Your task to perform on an android device: add a contact in the contacts app Image 0: 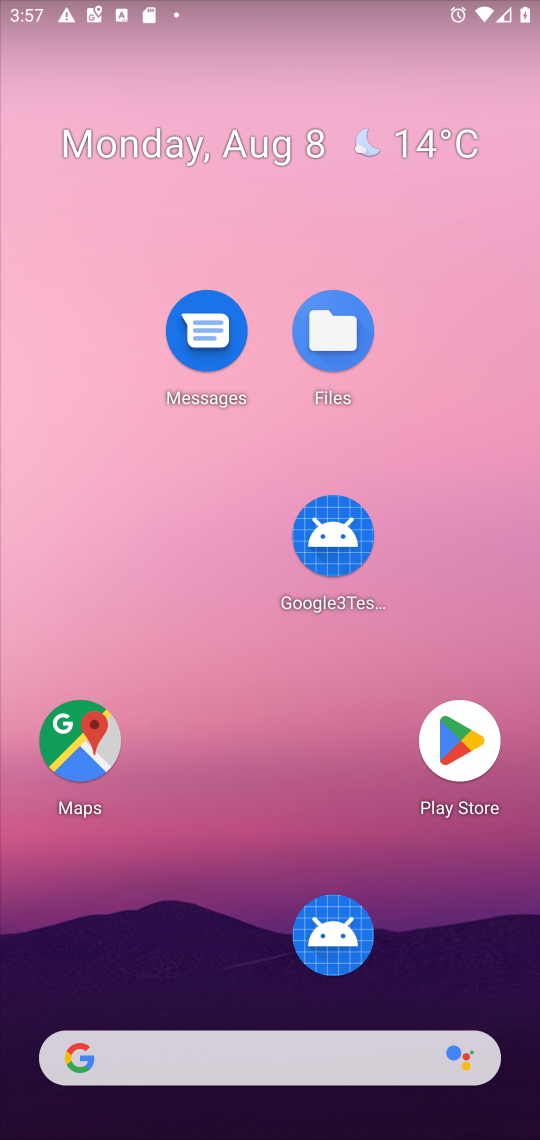
Step 0: drag from (273, 1047) to (177, 56)
Your task to perform on an android device: add a contact in the contacts app Image 1: 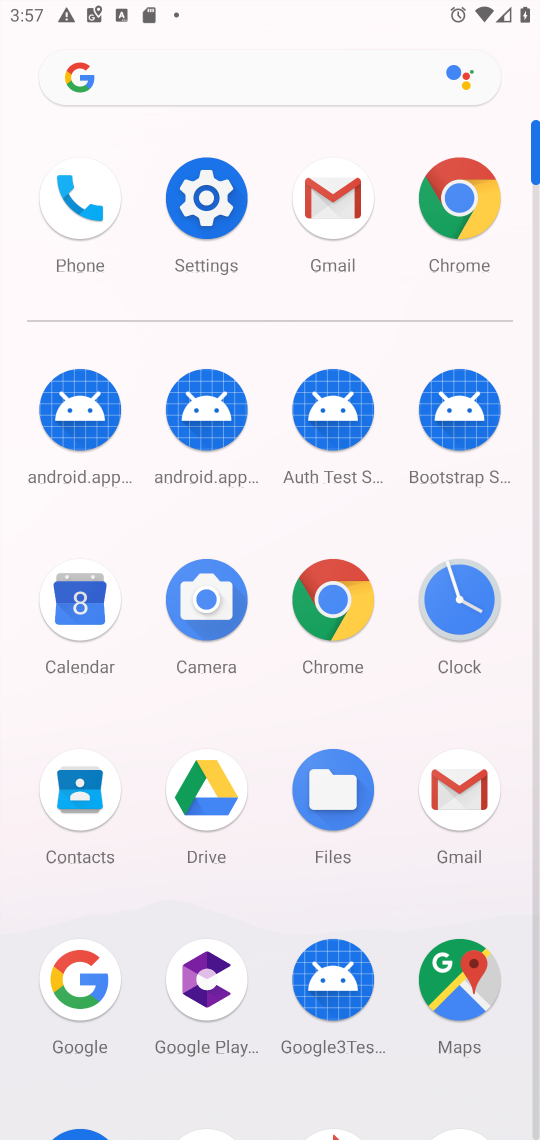
Step 1: click (85, 797)
Your task to perform on an android device: add a contact in the contacts app Image 2: 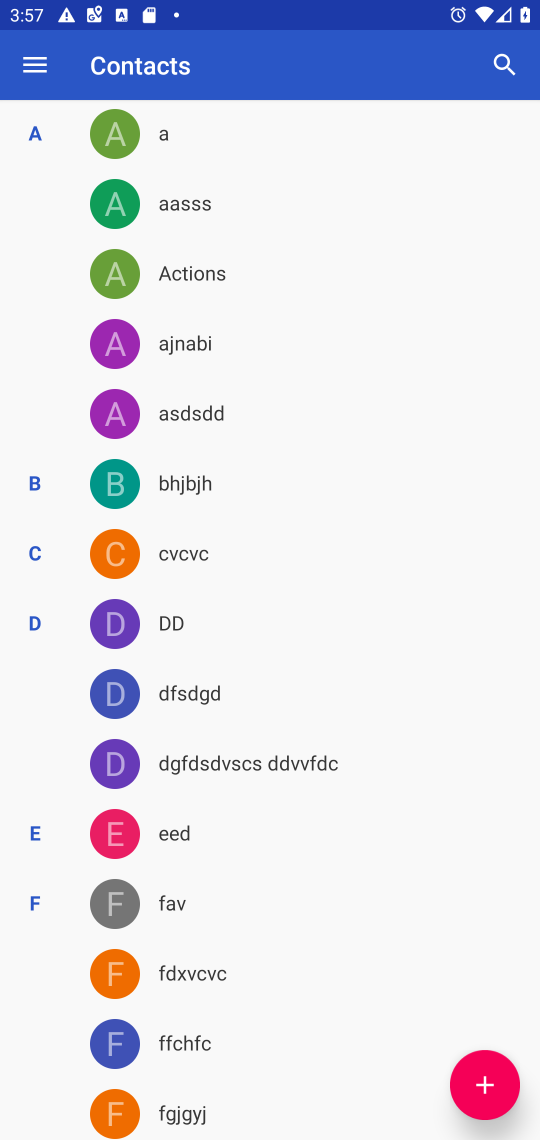
Step 2: click (497, 1082)
Your task to perform on an android device: add a contact in the contacts app Image 3: 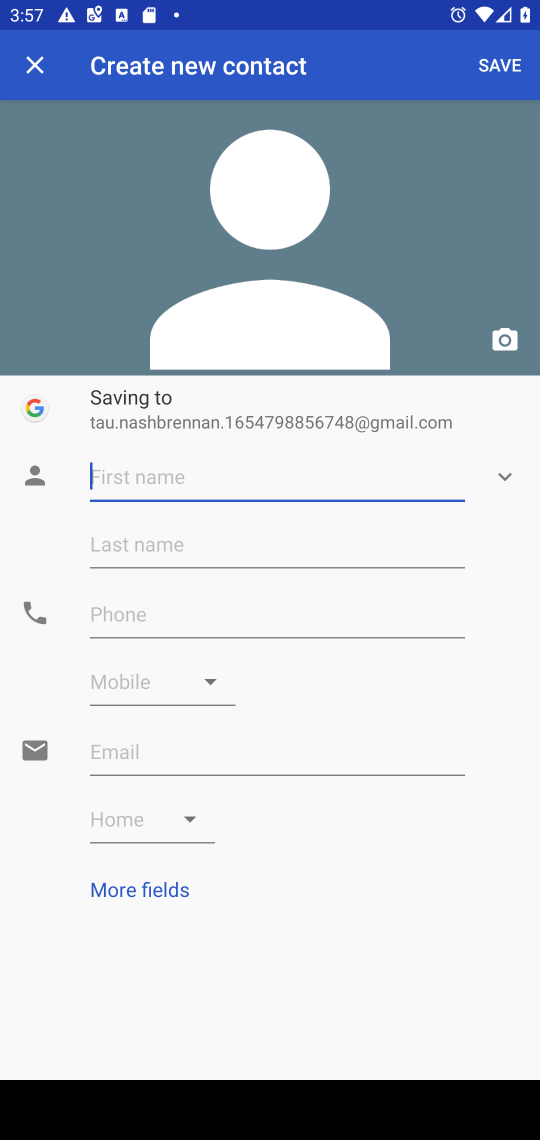
Step 3: type "jfhdf"
Your task to perform on an android device: add a contact in the contacts app Image 4: 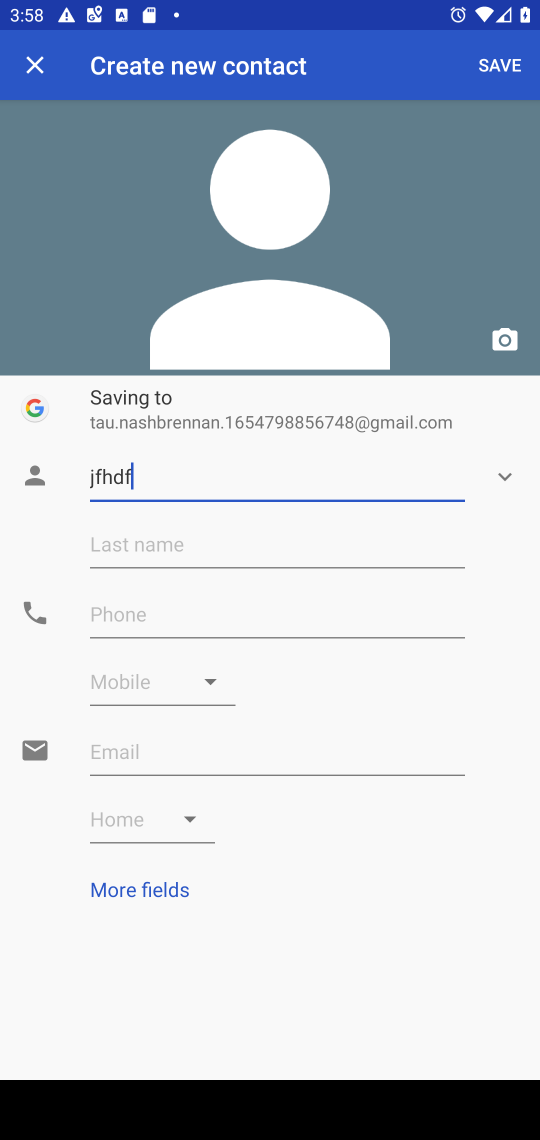
Step 4: click (145, 620)
Your task to perform on an android device: add a contact in the contacts app Image 5: 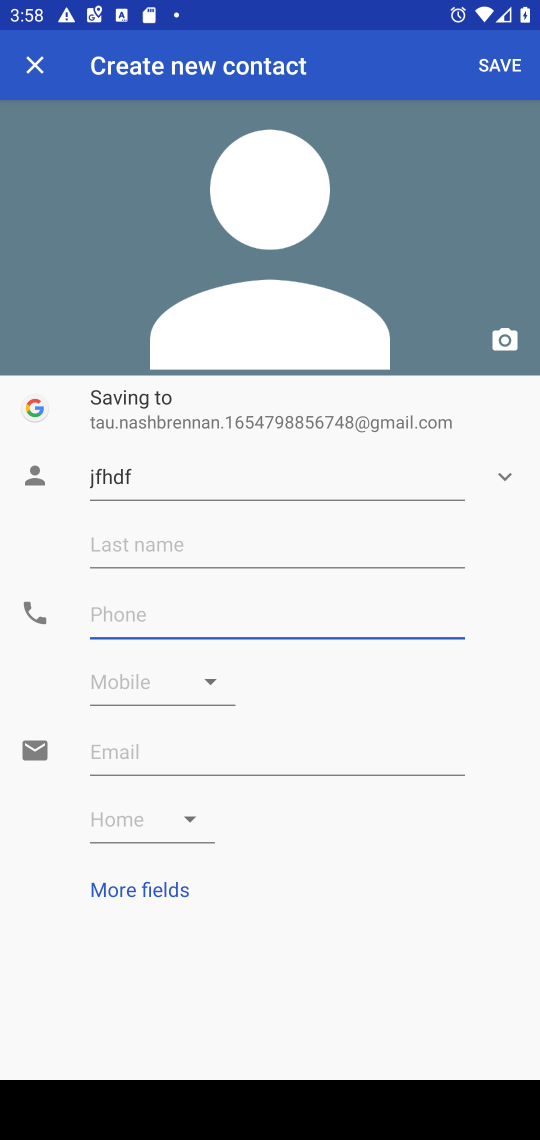
Step 5: click (422, 610)
Your task to perform on an android device: add a contact in the contacts app Image 6: 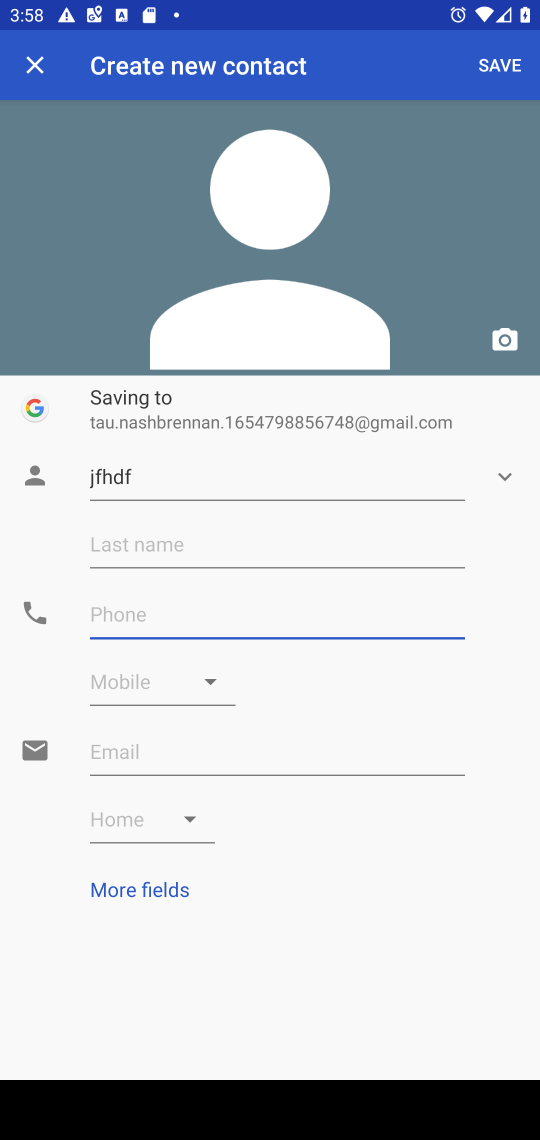
Step 6: type "9865567788"
Your task to perform on an android device: add a contact in the contacts app Image 7: 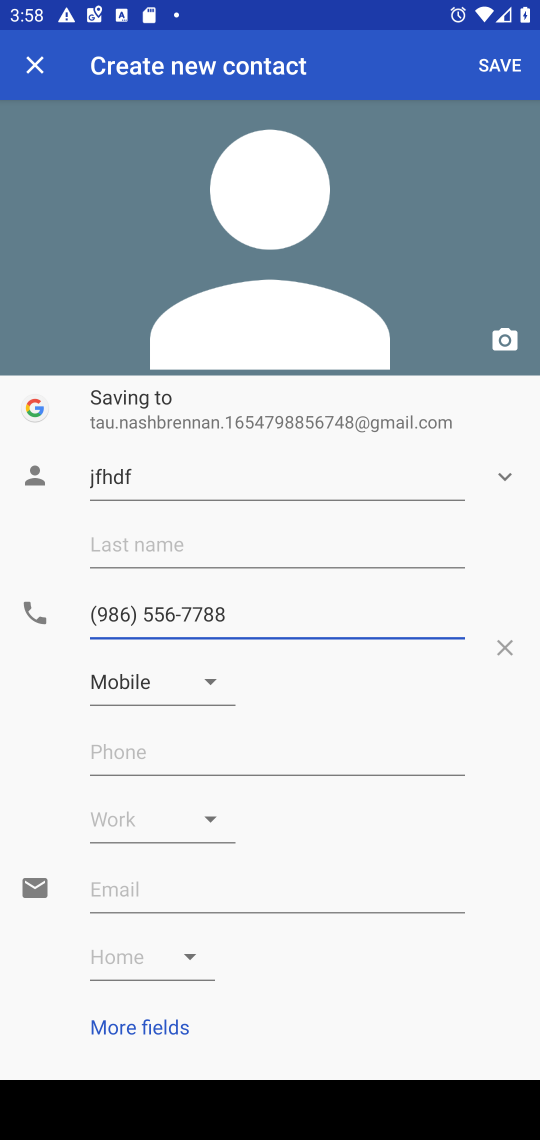
Step 7: click (518, 61)
Your task to perform on an android device: add a contact in the contacts app Image 8: 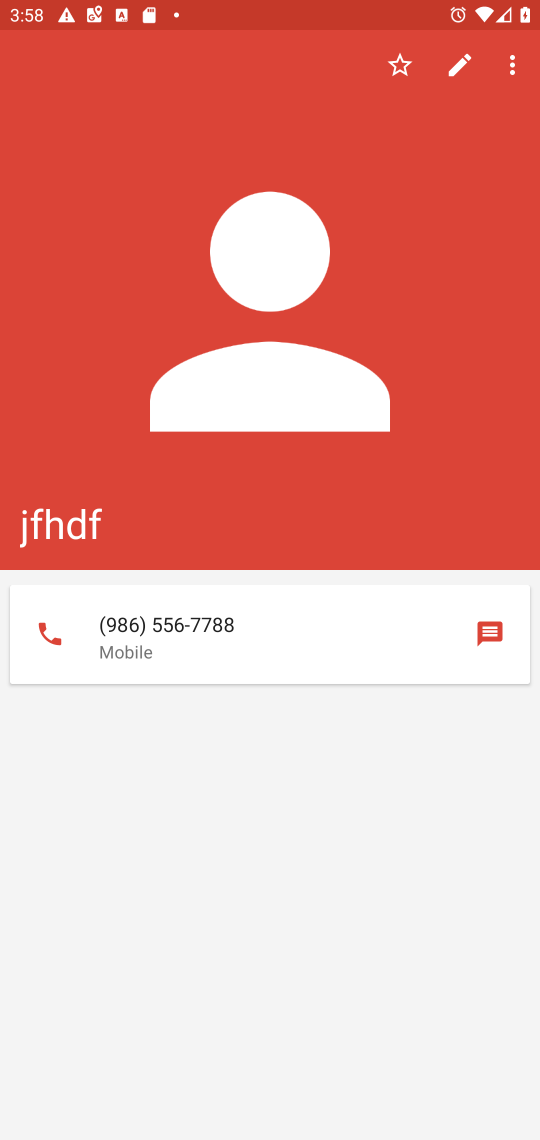
Step 8: task complete